Your task to perform on an android device: delete location history Image 0: 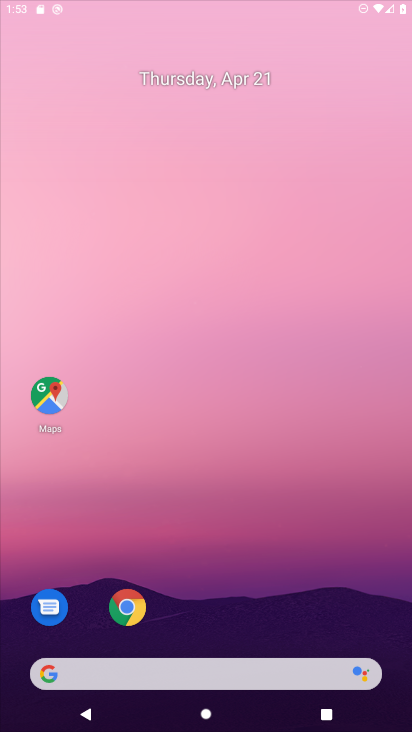
Step 0: drag from (245, 398) to (236, 80)
Your task to perform on an android device: delete location history Image 1: 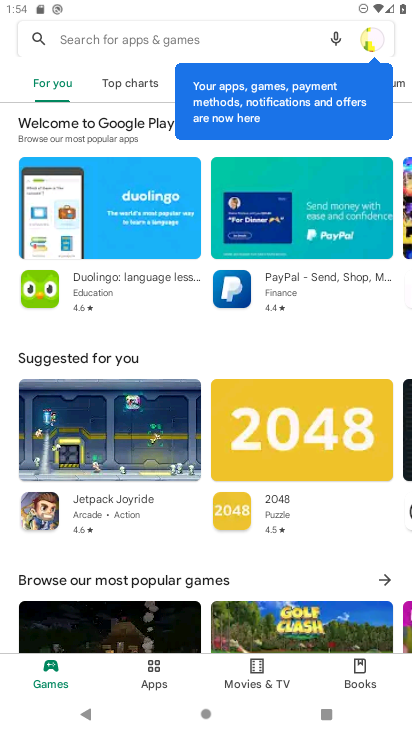
Step 1: click (75, 716)
Your task to perform on an android device: delete location history Image 2: 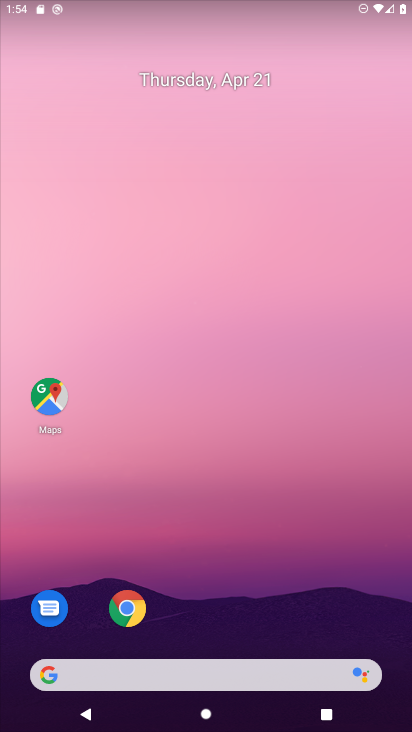
Step 2: drag from (221, 563) to (238, 149)
Your task to perform on an android device: delete location history Image 3: 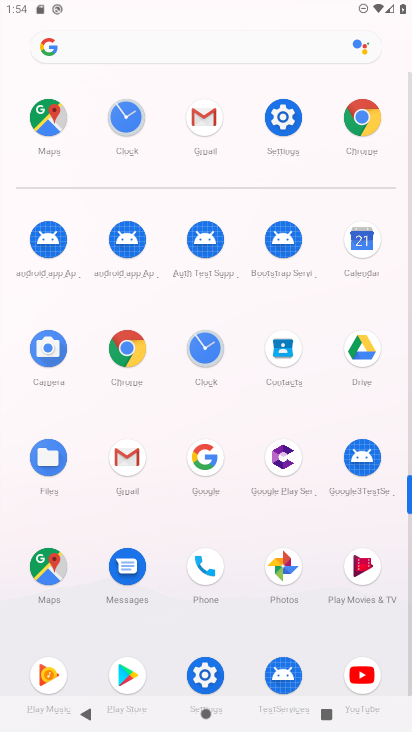
Step 3: click (53, 126)
Your task to perform on an android device: delete location history Image 4: 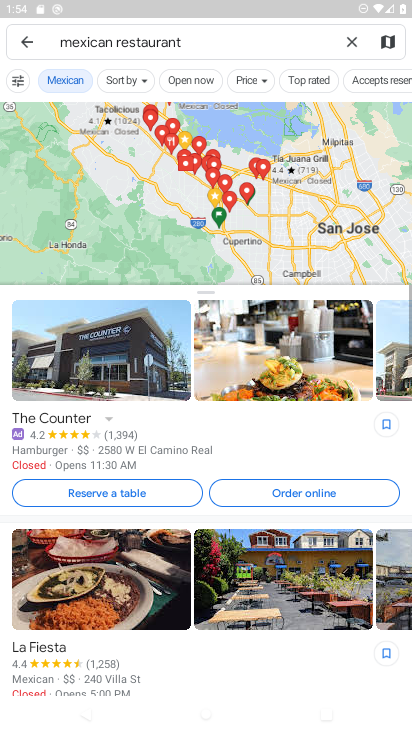
Step 4: click (30, 38)
Your task to perform on an android device: delete location history Image 5: 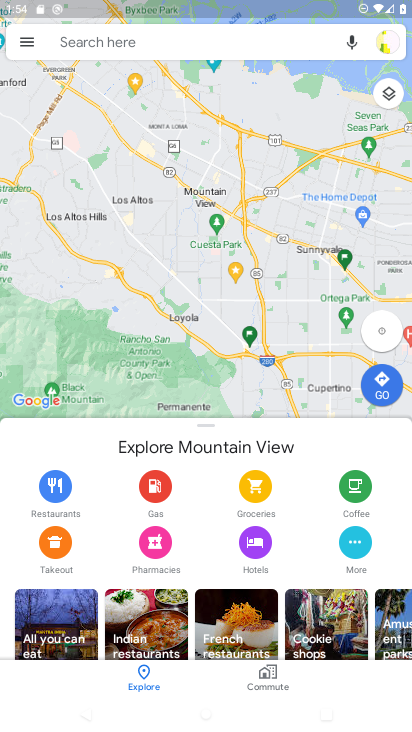
Step 5: click (30, 38)
Your task to perform on an android device: delete location history Image 6: 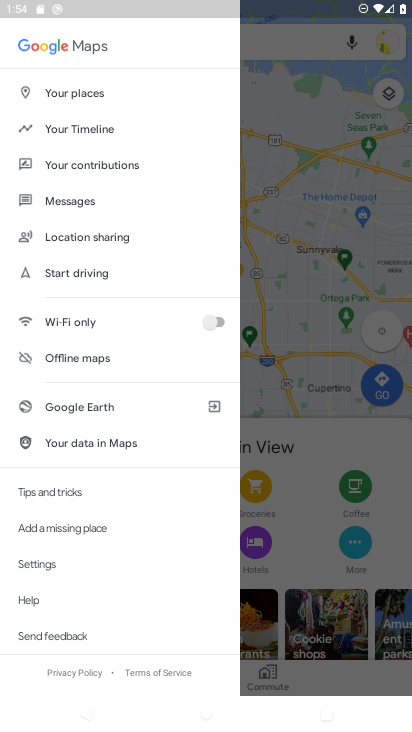
Step 6: click (52, 123)
Your task to perform on an android device: delete location history Image 7: 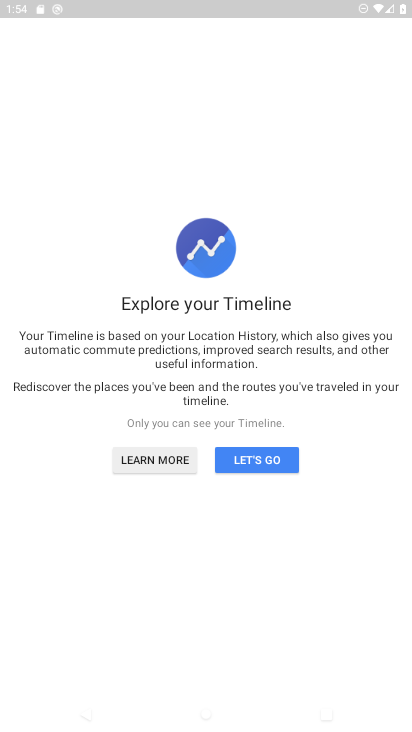
Step 7: click (264, 457)
Your task to perform on an android device: delete location history Image 8: 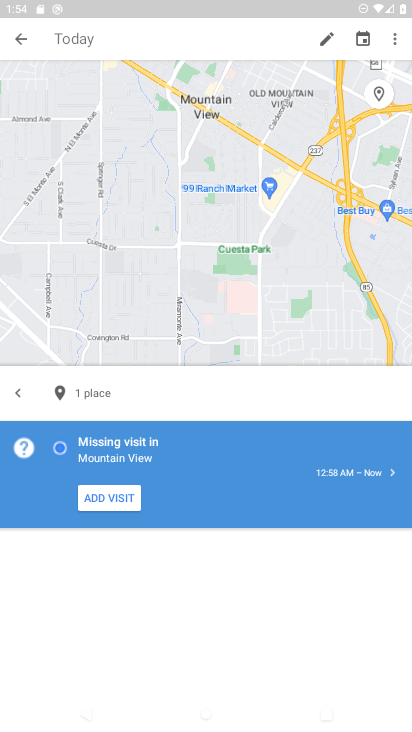
Step 8: click (409, 40)
Your task to perform on an android device: delete location history Image 9: 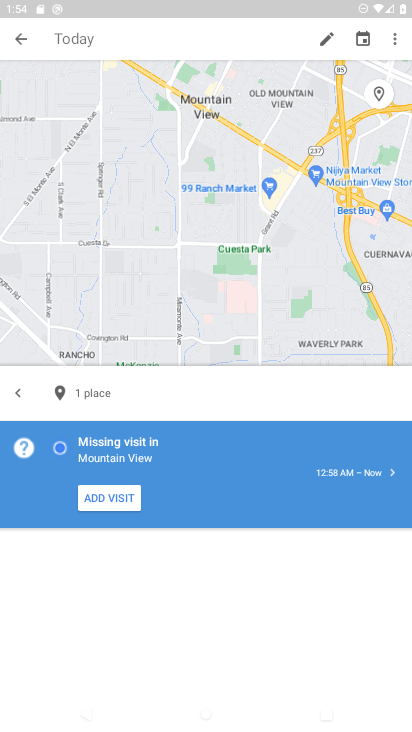
Step 9: click (397, 45)
Your task to perform on an android device: delete location history Image 10: 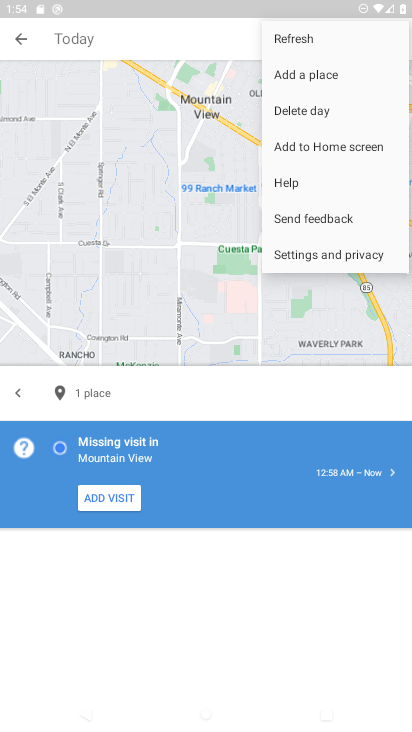
Step 10: click (335, 263)
Your task to perform on an android device: delete location history Image 11: 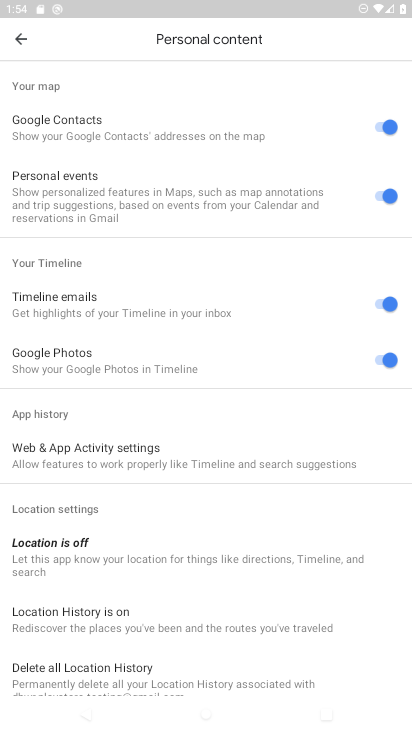
Step 11: drag from (98, 617) to (96, 318)
Your task to perform on an android device: delete location history Image 12: 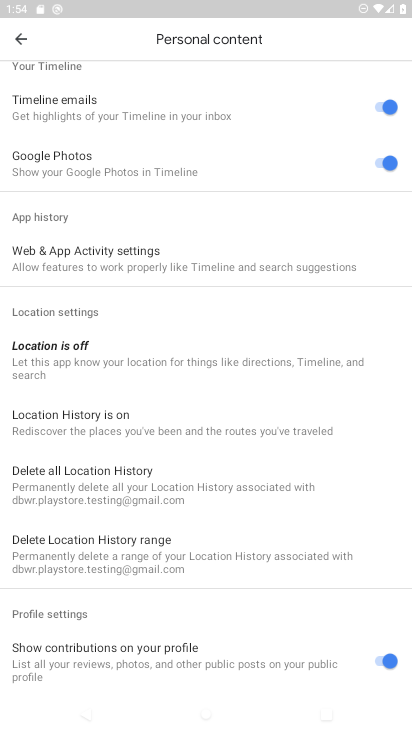
Step 12: click (115, 474)
Your task to perform on an android device: delete location history Image 13: 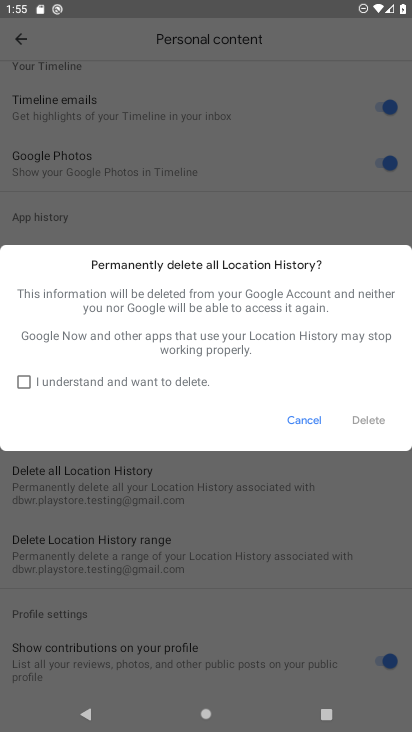
Step 13: click (29, 384)
Your task to perform on an android device: delete location history Image 14: 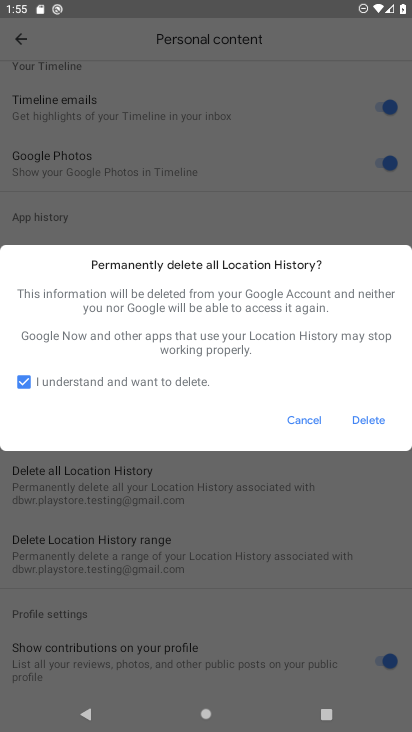
Step 14: click (378, 416)
Your task to perform on an android device: delete location history Image 15: 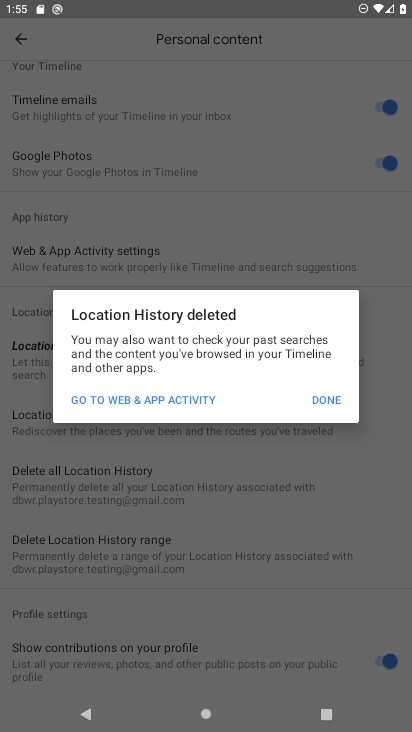
Step 15: click (341, 407)
Your task to perform on an android device: delete location history Image 16: 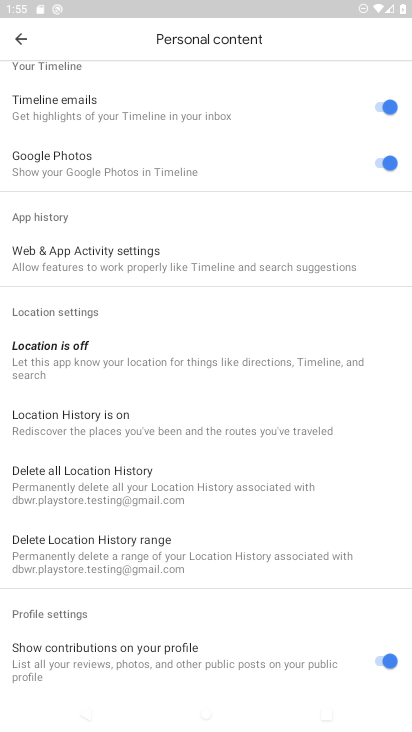
Step 16: task complete